Your task to perform on an android device: Go to internet settings Image 0: 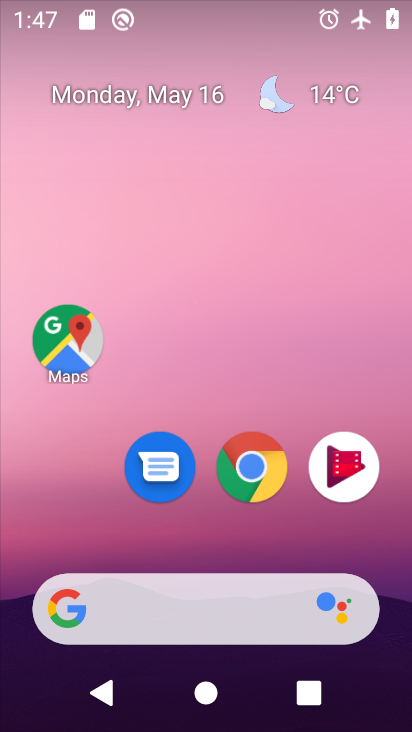
Step 0: drag from (278, 481) to (318, 173)
Your task to perform on an android device: Go to internet settings Image 1: 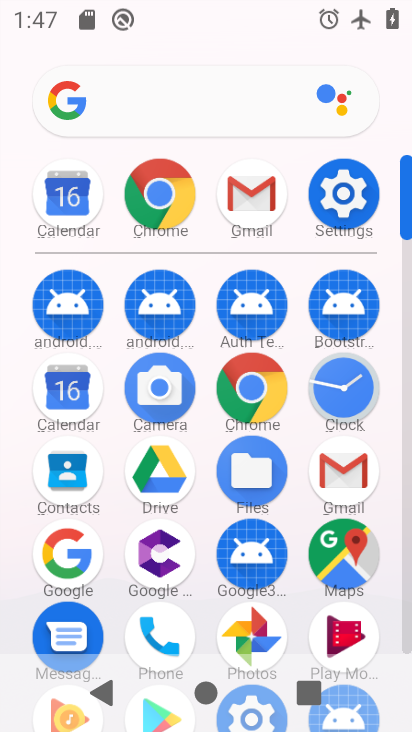
Step 1: click (334, 179)
Your task to perform on an android device: Go to internet settings Image 2: 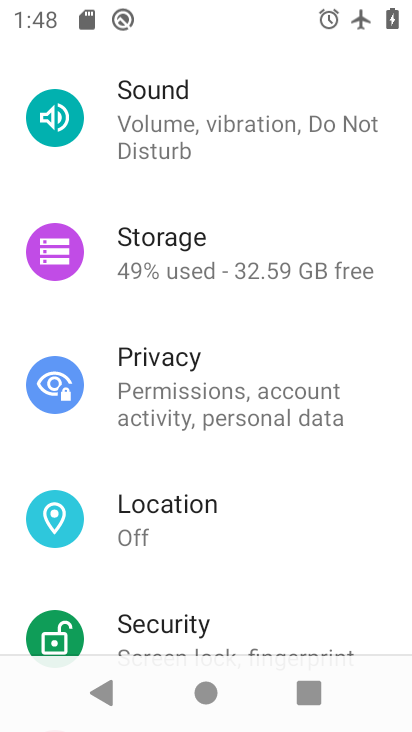
Step 2: drag from (220, 138) to (214, 564)
Your task to perform on an android device: Go to internet settings Image 3: 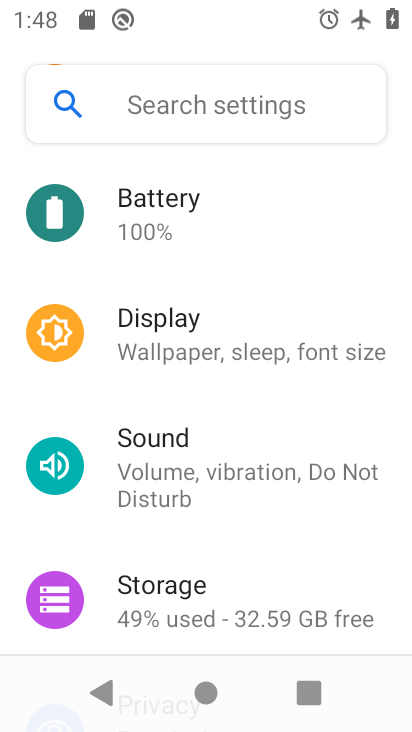
Step 3: drag from (265, 211) to (231, 519)
Your task to perform on an android device: Go to internet settings Image 4: 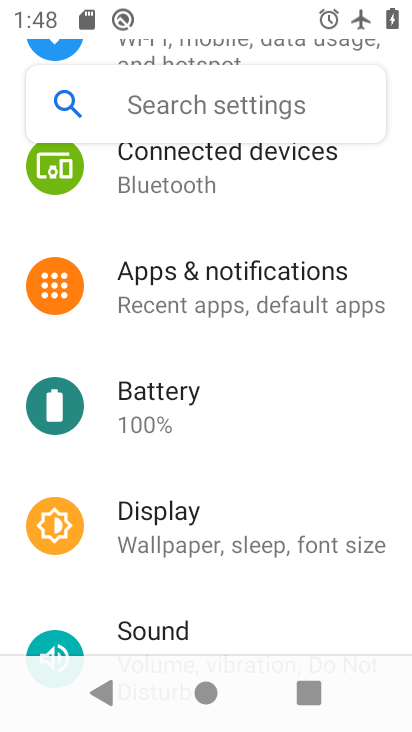
Step 4: drag from (263, 163) to (222, 444)
Your task to perform on an android device: Go to internet settings Image 5: 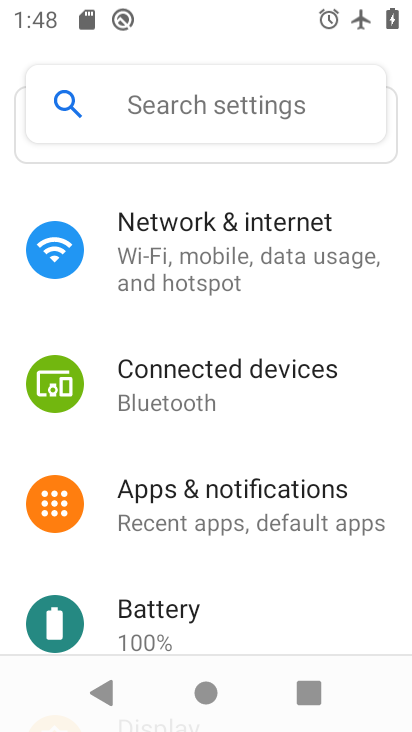
Step 5: click (251, 206)
Your task to perform on an android device: Go to internet settings Image 6: 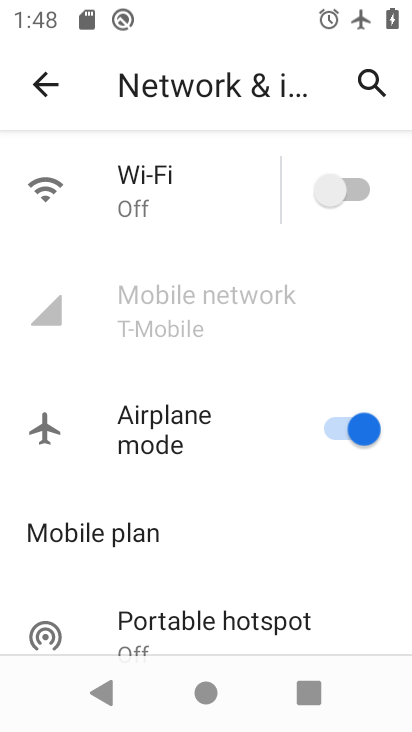
Step 6: task complete